Your task to perform on an android device: star an email in the gmail app Image 0: 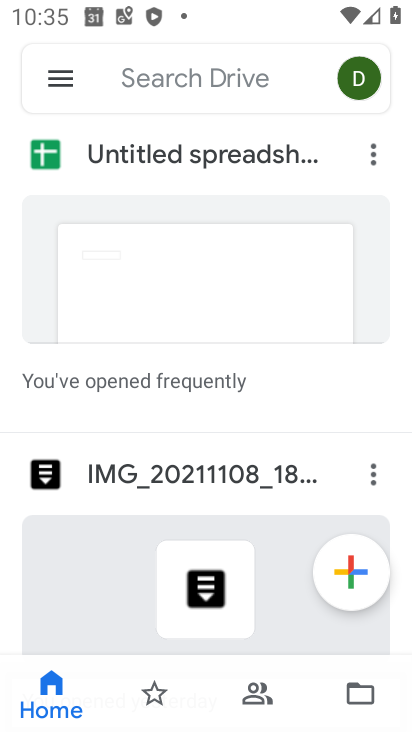
Step 0: press back button
Your task to perform on an android device: star an email in the gmail app Image 1: 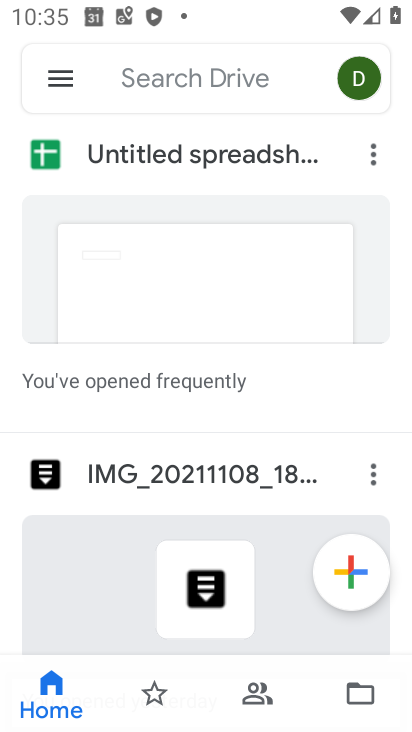
Step 1: press back button
Your task to perform on an android device: star an email in the gmail app Image 2: 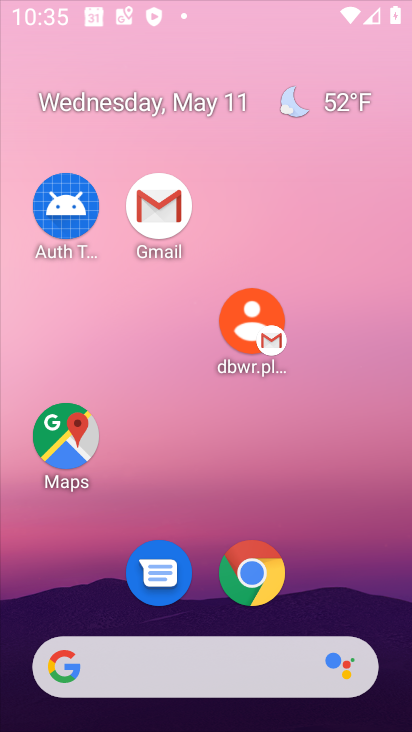
Step 2: press home button
Your task to perform on an android device: star an email in the gmail app Image 3: 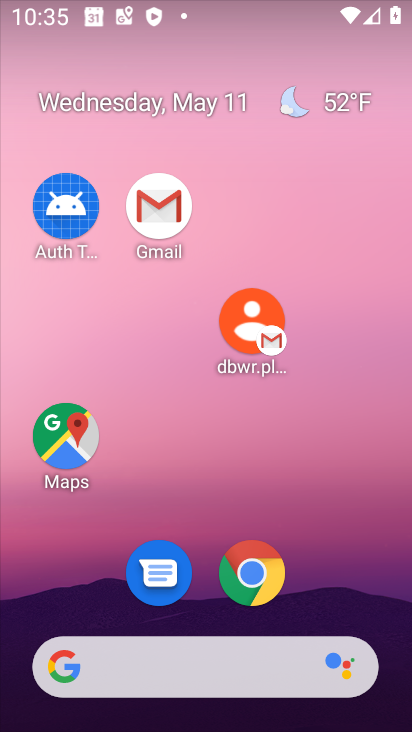
Step 3: press home button
Your task to perform on an android device: star an email in the gmail app Image 4: 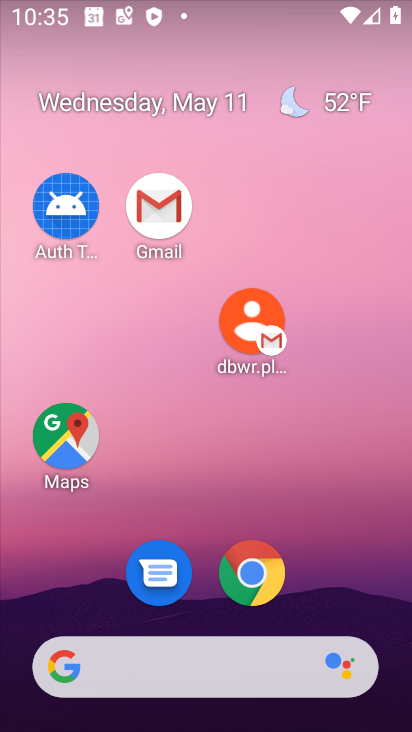
Step 4: press home button
Your task to perform on an android device: star an email in the gmail app Image 5: 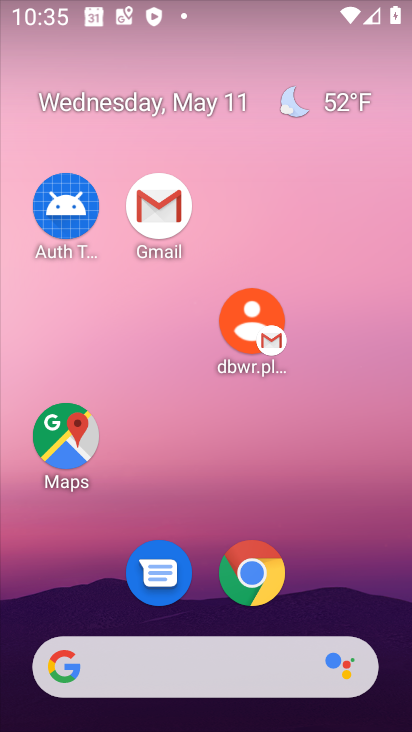
Step 5: press home button
Your task to perform on an android device: star an email in the gmail app Image 6: 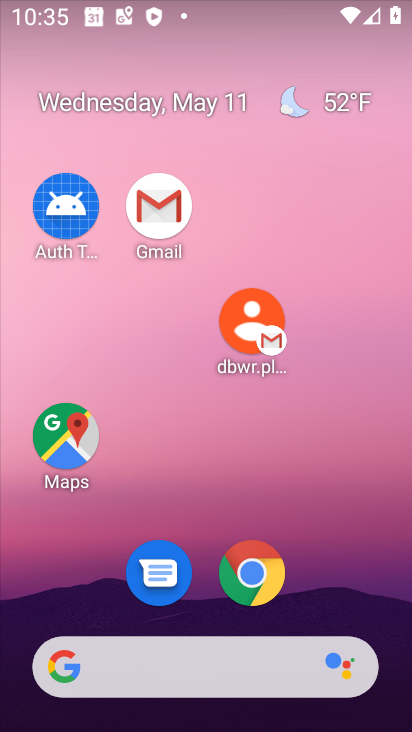
Step 6: drag from (376, 597) to (97, 52)
Your task to perform on an android device: star an email in the gmail app Image 7: 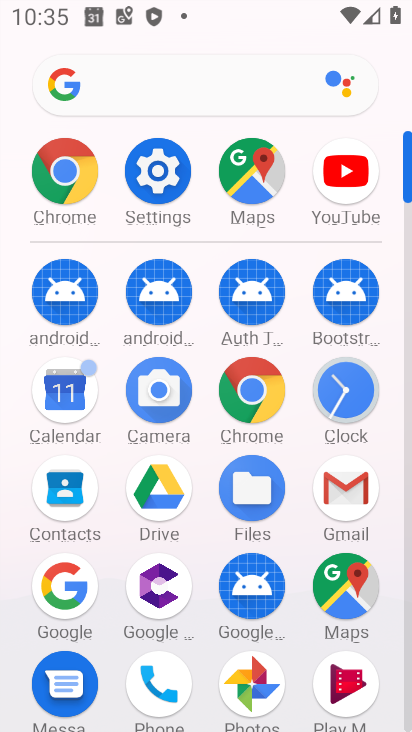
Step 7: click (348, 487)
Your task to perform on an android device: star an email in the gmail app Image 8: 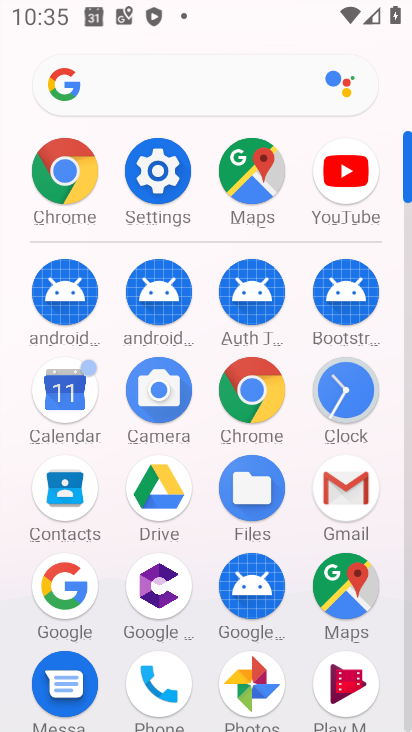
Step 8: click (351, 492)
Your task to perform on an android device: star an email in the gmail app Image 9: 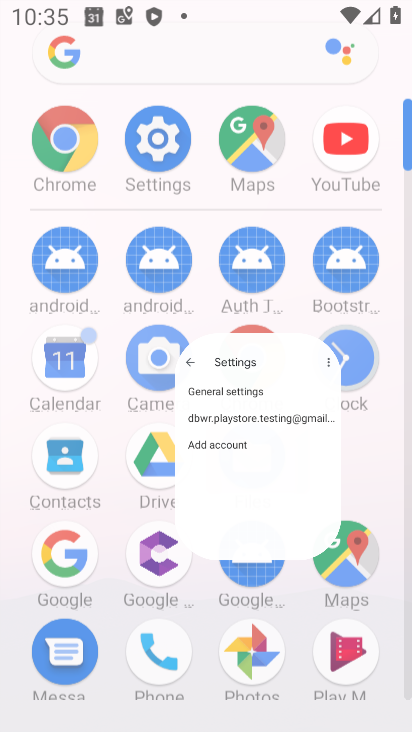
Step 9: click (354, 510)
Your task to perform on an android device: star an email in the gmail app Image 10: 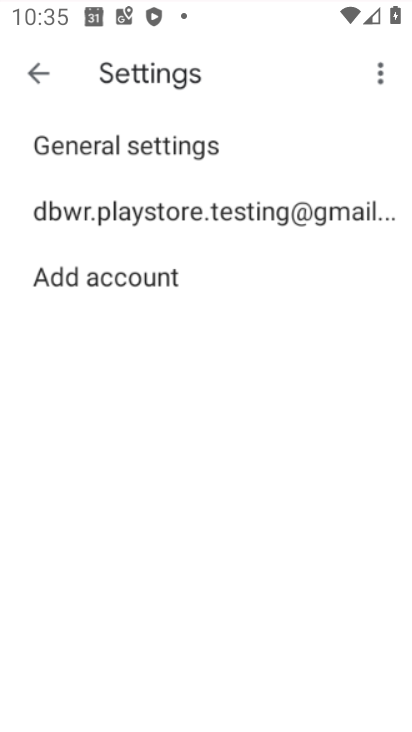
Step 10: click (341, 496)
Your task to perform on an android device: star an email in the gmail app Image 11: 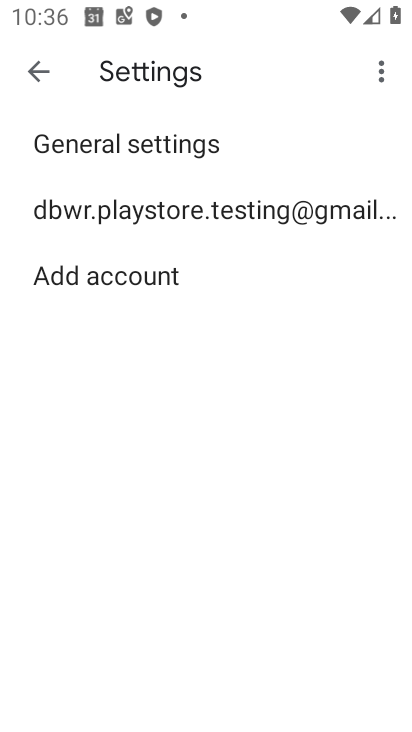
Step 11: click (147, 199)
Your task to perform on an android device: star an email in the gmail app Image 12: 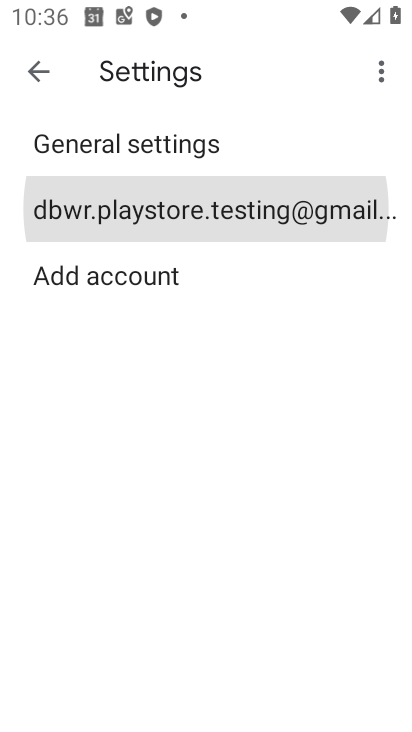
Step 12: click (147, 199)
Your task to perform on an android device: star an email in the gmail app Image 13: 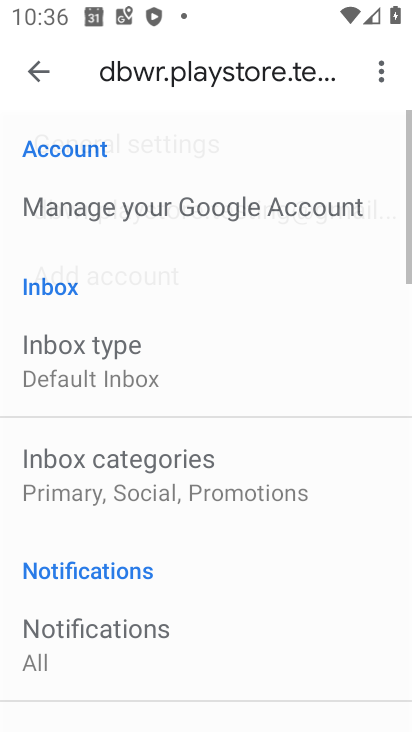
Step 13: click (148, 200)
Your task to perform on an android device: star an email in the gmail app Image 14: 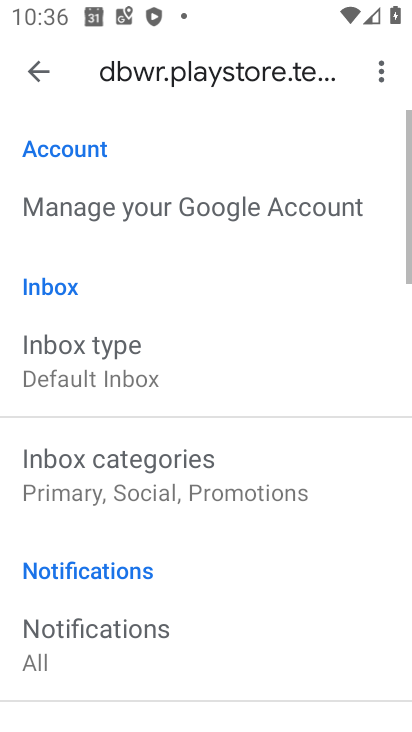
Step 14: click (149, 201)
Your task to perform on an android device: star an email in the gmail app Image 15: 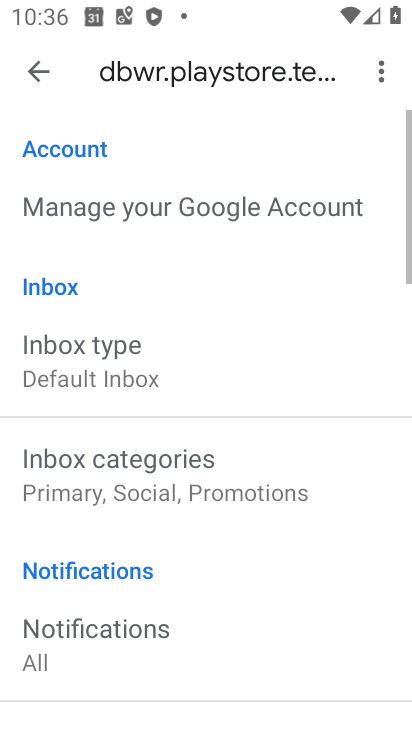
Step 15: click (149, 201)
Your task to perform on an android device: star an email in the gmail app Image 16: 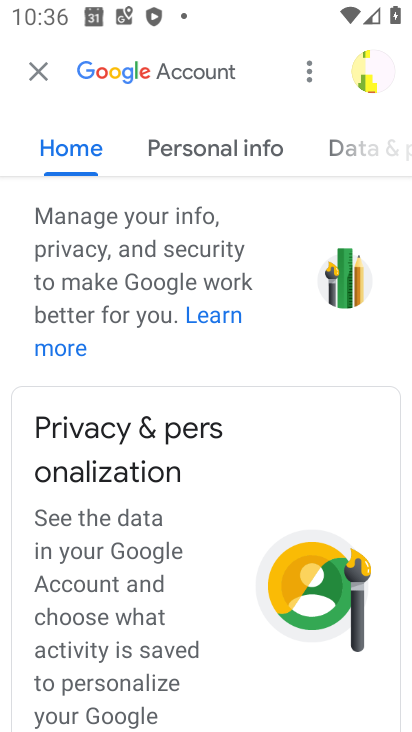
Step 16: press home button
Your task to perform on an android device: star an email in the gmail app Image 17: 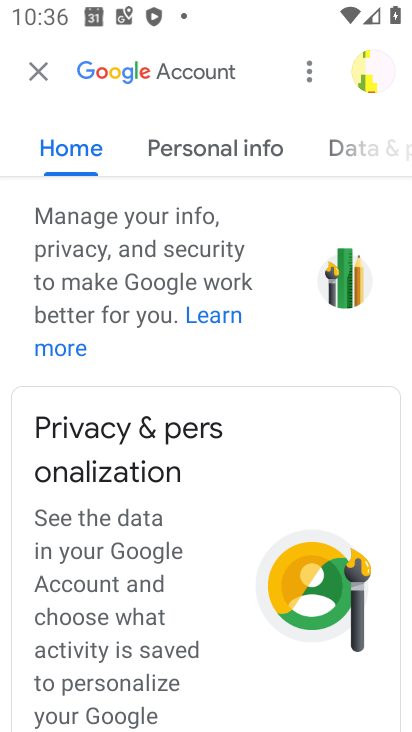
Step 17: press home button
Your task to perform on an android device: star an email in the gmail app Image 18: 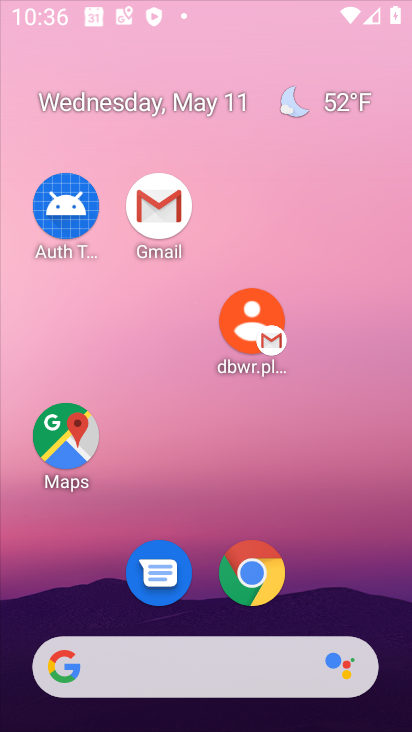
Step 18: press home button
Your task to perform on an android device: star an email in the gmail app Image 19: 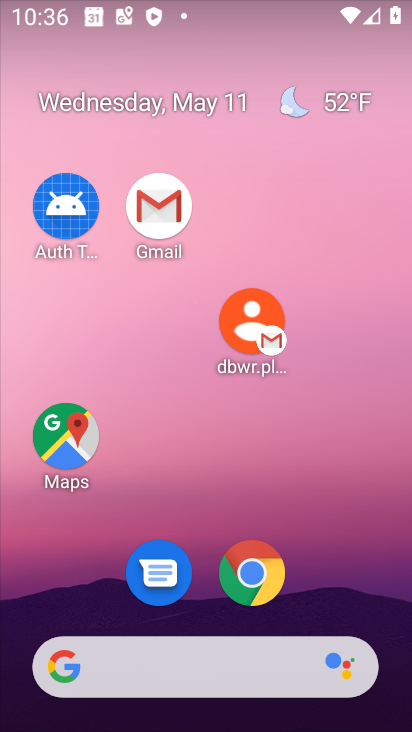
Step 19: press home button
Your task to perform on an android device: star an email in the gmail app Image 20: 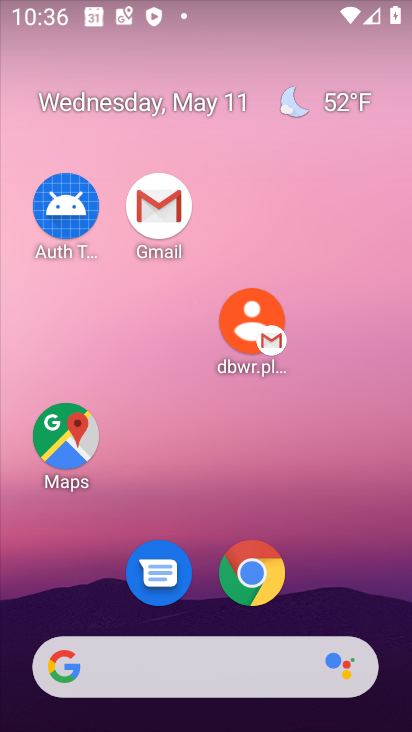
Step 20: drag from (338, 571) to (39, 59)
Your task to perform on an android device: star an email in the gmail app Image 21: 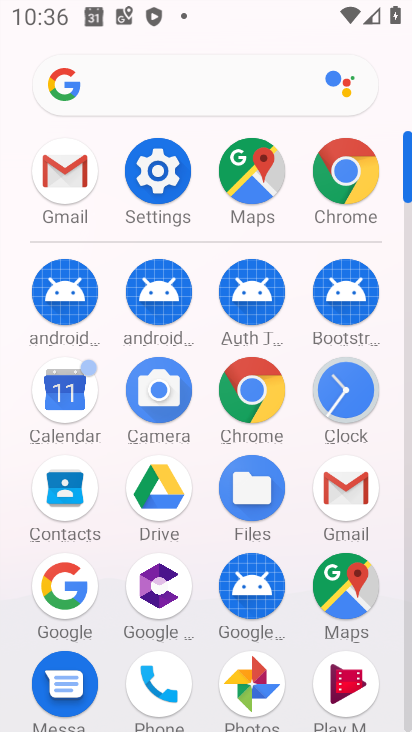
Step 21: click (352, 480)
Your task to perform on an android device: star an email in the gmail app Image 22: 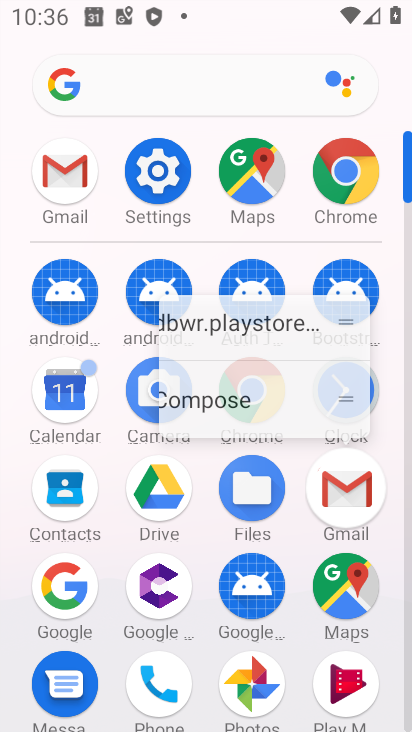
Step 22: click (345, 498)
Your task to perform on an android device: star an email in the gmail app Image 23: 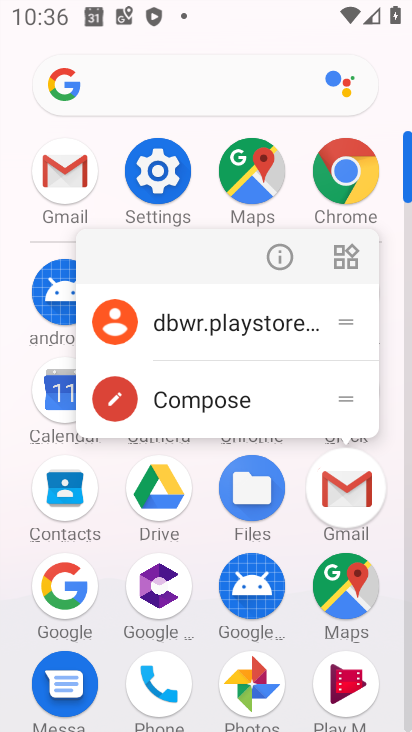
Step 23: click (346, 493)
Your task to perform on an android device: star an email in the gmail app Image 24: 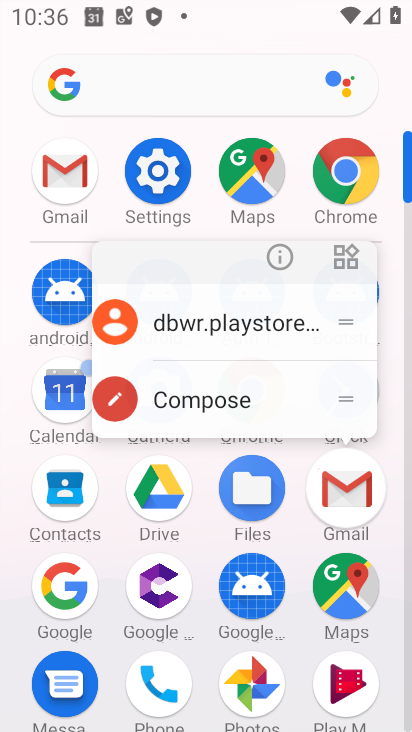
Step 24: click (347, 489)
Your task to perform on an android device: star an email in the gmail app Image 25: 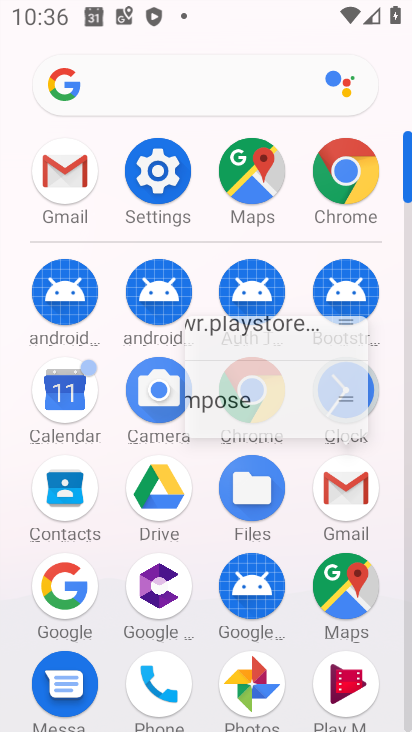
Step 25: click (347, 487)
Your task to perform on an android device: star an email in the gmail app Image 26: 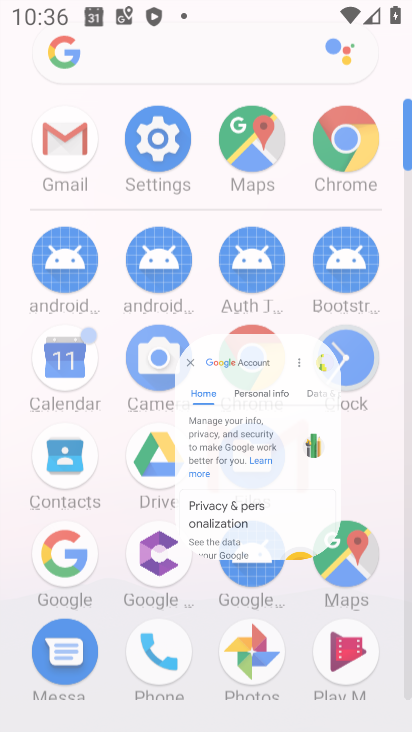
Step 26: click (346, 485)
Your task to perform on an android device: star an email in the gmail app Image 27: 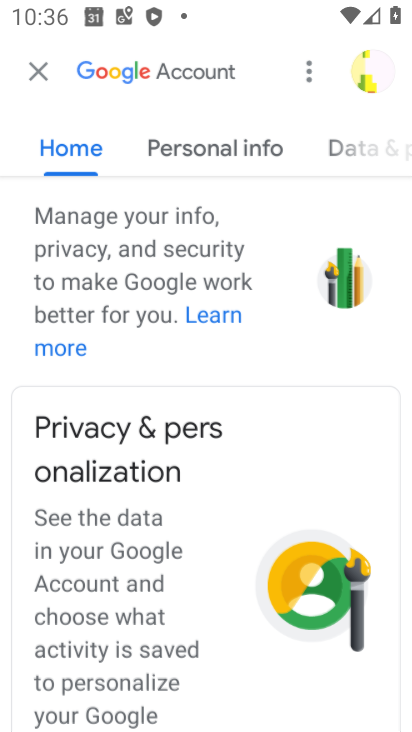
Step 27: click (346, 485)
Your task to perform on an android device: star an email in the gmail app Image 28: 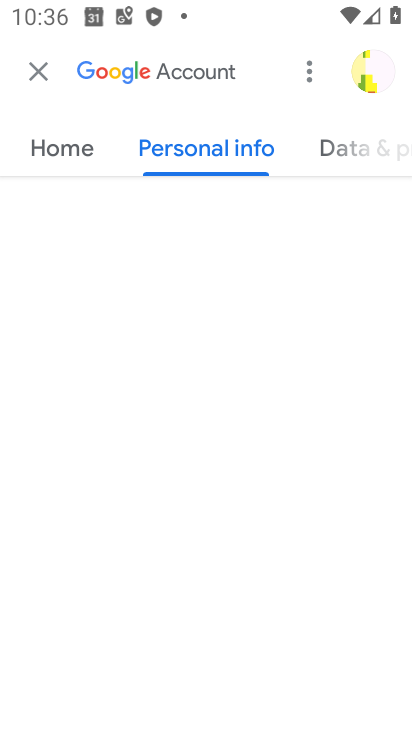
Step 28: click (26, 65)
Your task to perform on an android device: star an email in the gmail app Image 29: 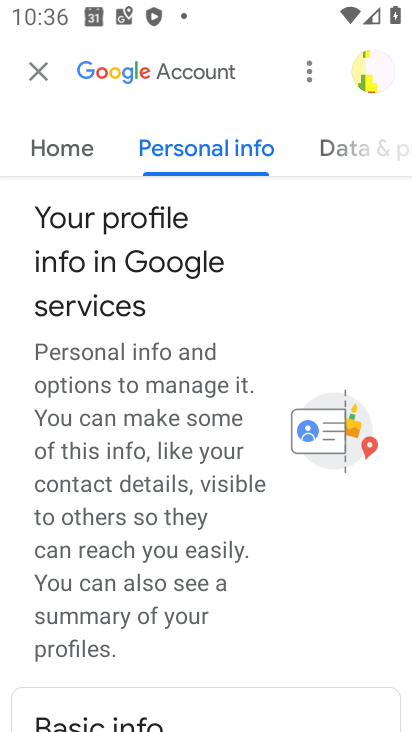
Step 29: click (25, 65)
Your task to perform on an android device: star an email in the gmail app Image 30: 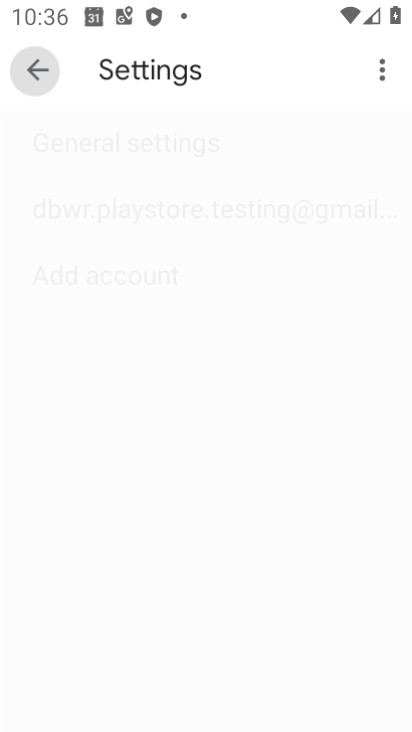
Step 30: click (22, 61)
Your task to perform on an android device: star an email in the gmail app Image 31: 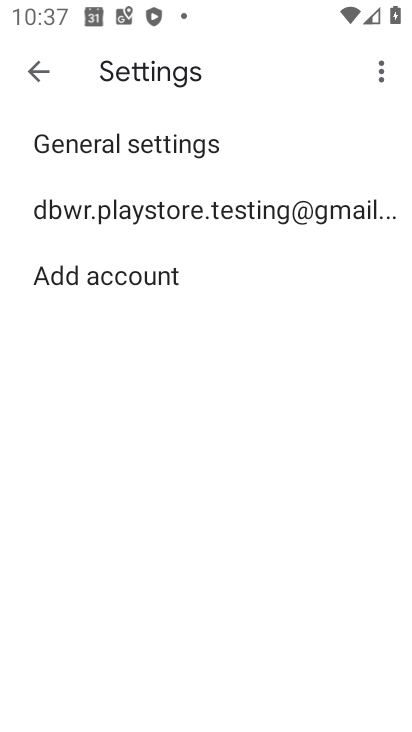
Step 31: drag from (30, 64) to (54, 100)
Your task to perform on an android device: star an email in the gmail app Image 32: 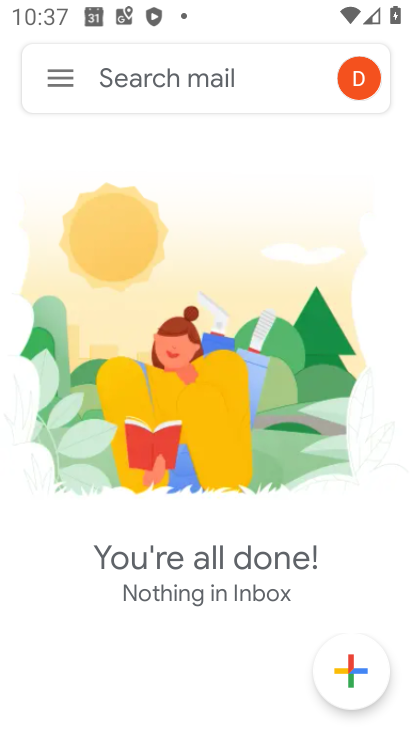
Step 32: click (57, 69)
Your task to perform on an android device: star an email in the gmail app Image 33: 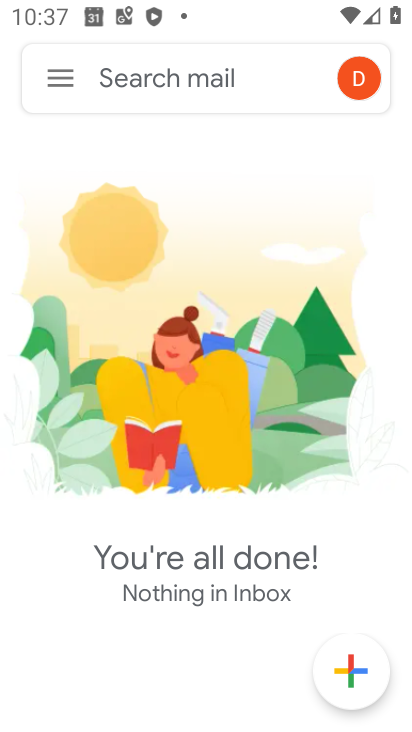
Step 33: click (57, 69)
Your task to perform on an android device: star an email in the gmail app Image 34: 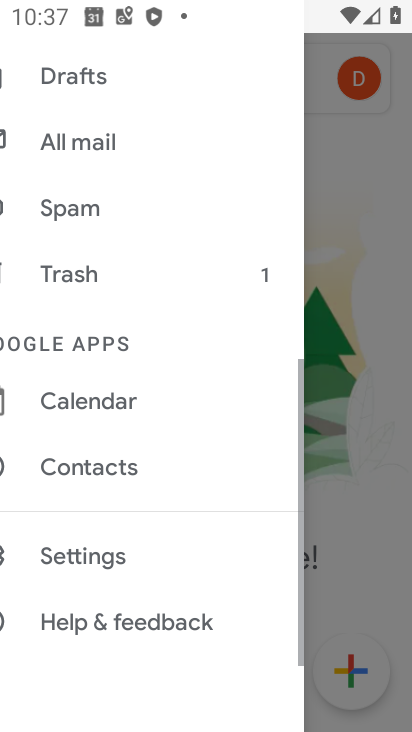
Step 34: click (57, 69)
Your task to perform on an android device: star an email in the gmail app Image 35: 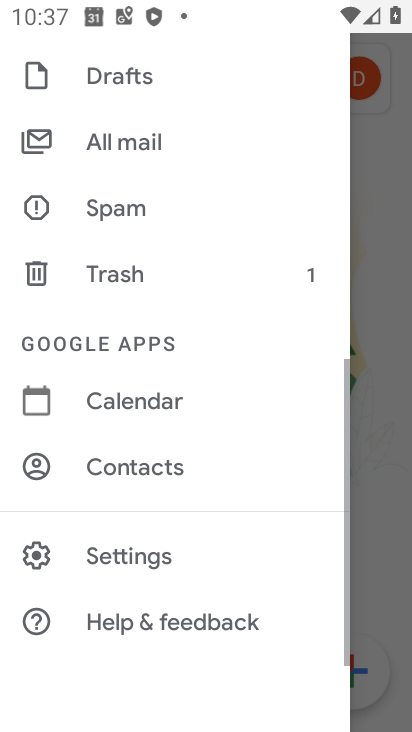
Step 35: drag from (67, 191) to (135, 287)
Your task to perform on an android device: star an email in the gmail app Image 36: 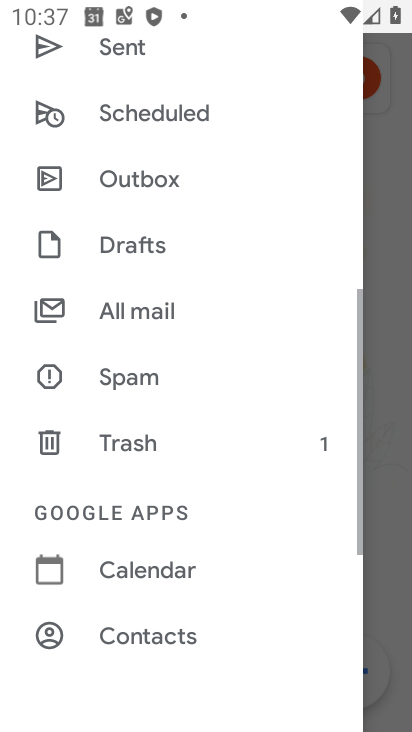
Step 36: click (138, 285)
Your task to perform on an android device: star an email in the gmail app Image 37: 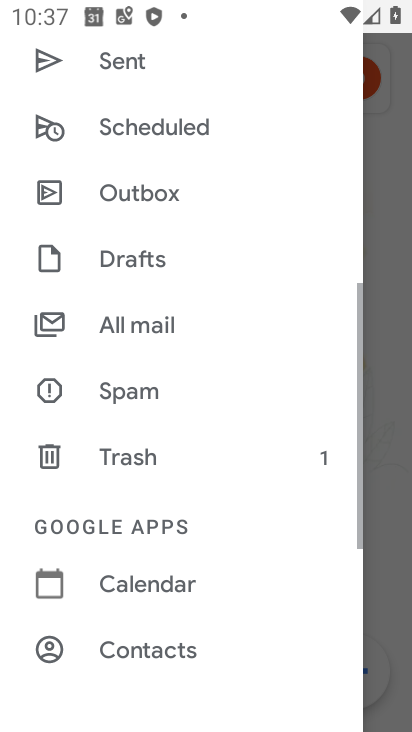
Step 37: click (140, 302)
Your task to perform on an android device: star an email in the gmail app Image 38: 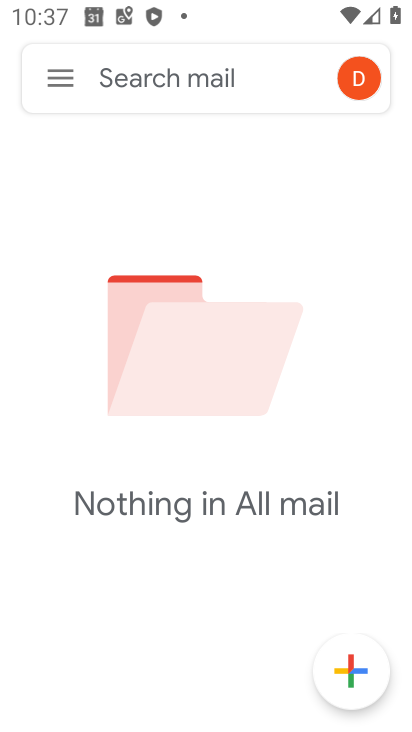
Step 38: task complete